Your task to perform on an android device: Open Youtube and go to "Your channel" Image 0: 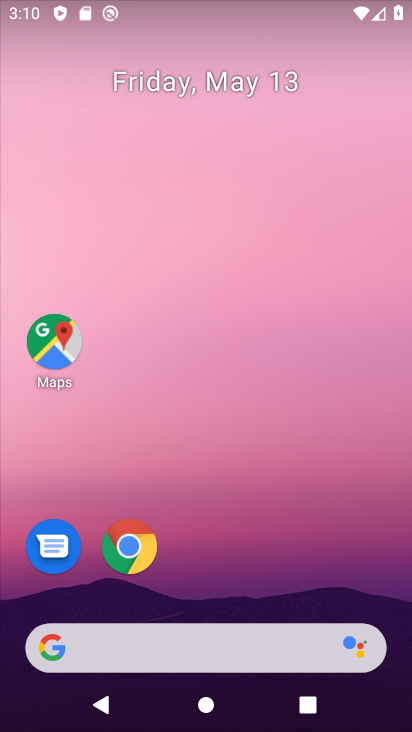
Step 0: drag from (189, 603) to (315, 127)
Your task to perform on an android device: Open Youtube and go to "Your channel" Image 1: 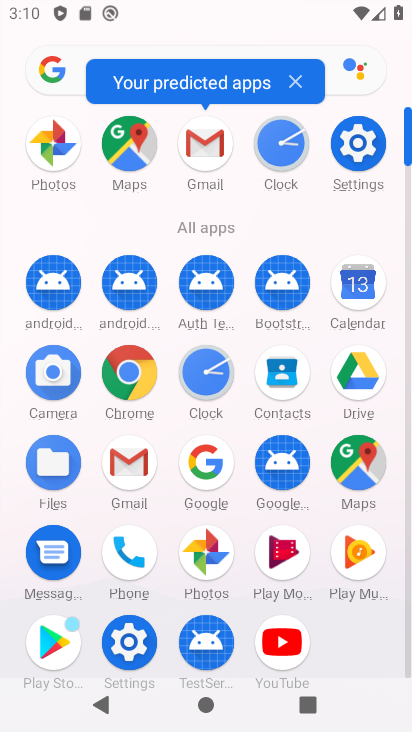
Step 1: click (267, 646)
Your task to perform on an android device: Open Youtube and go to "Your channel" Image 2: 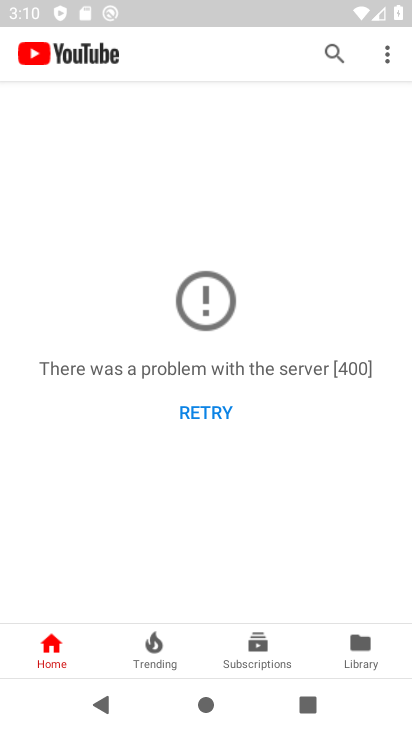
Step 2: click (358, 661)
Your task to perform on an android device: Open Youtube and go to "Your channel" Image 3: 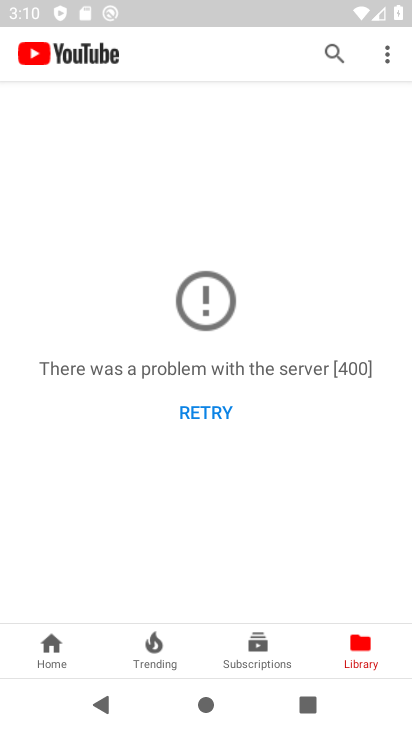
Step 3: task complete